Your task to perform on an android device: Open Reddit.com Image 0: 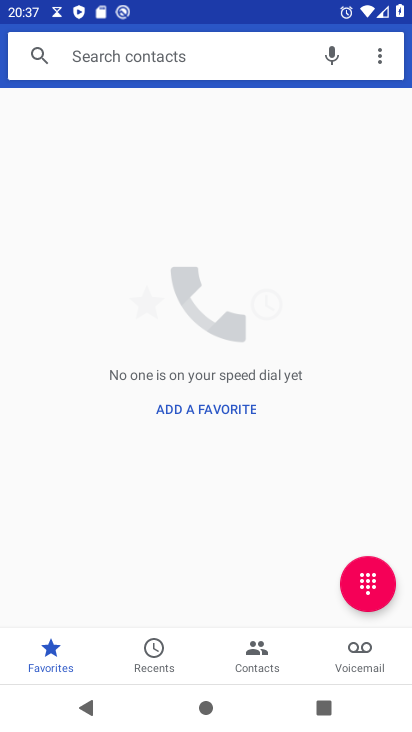
Step 0: press home button
Your task to perform on an android device: Open Reddit.com Image 1: 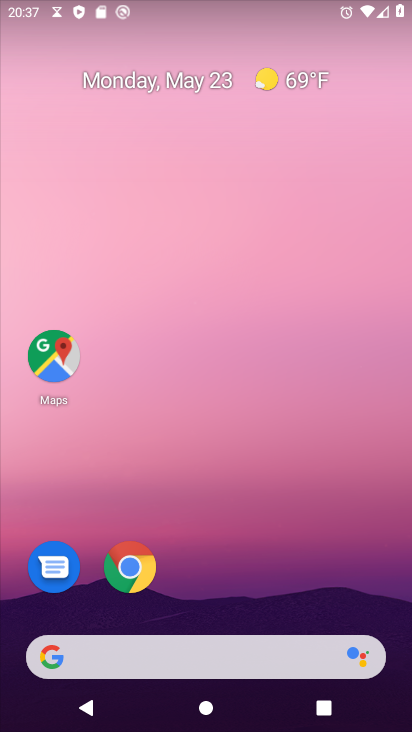
Step 1: drag from (198, 607) to (324, 22)
Your task to perform on an android device: Open Reddit.com Image 2: 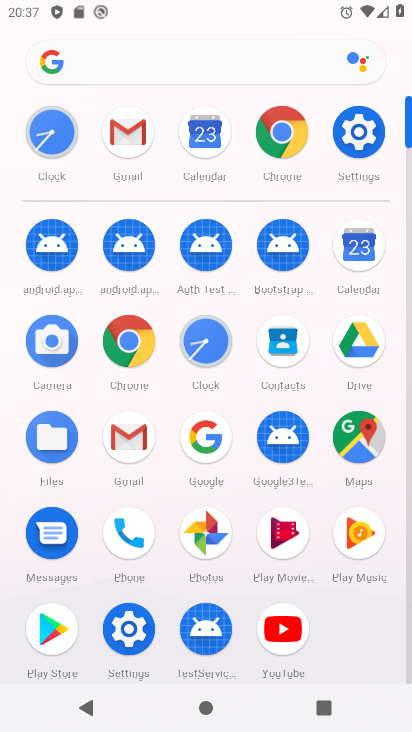
Step 2: click (286, 129)
Your task to perform on an android device: Open Reddit.com Image 3: 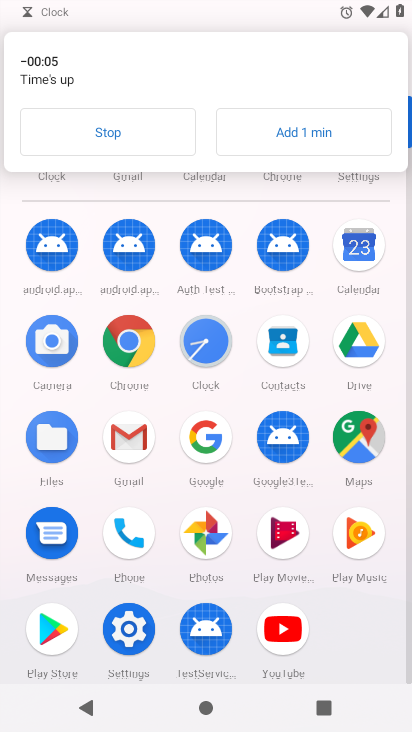
Step 3: click (124, 138)
Your task to perform on an android device: Open Reddit.com Image 4: 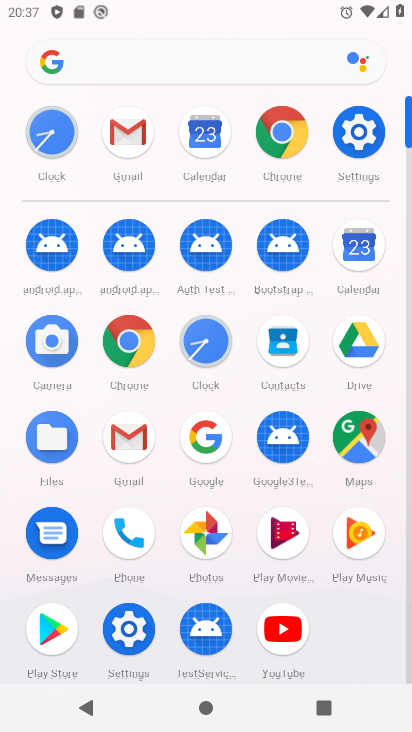
Step 4: click (292, 141)
Your task to perform on an android device: Open Reddit.com Image 5: 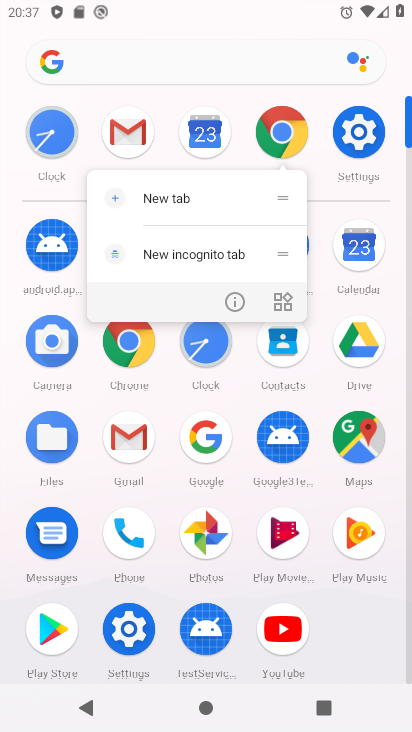
Step 5: click (288, 147)
Your task to perform on an android device: Open Reddit.com Image 6: 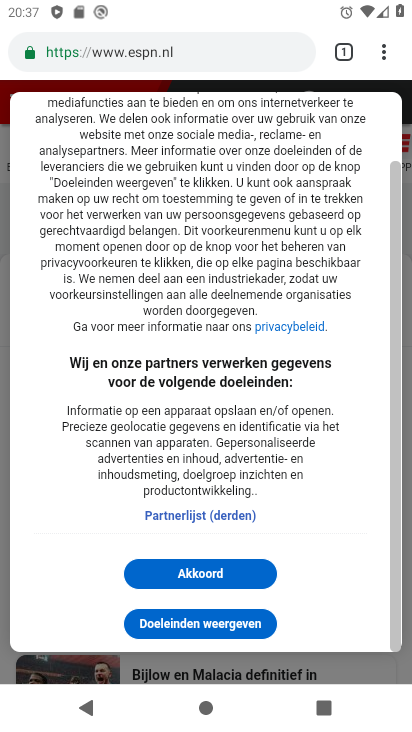
Step 6: click (165, 39)
Your task to perform on an android device: Open Reddit.com Image 7: 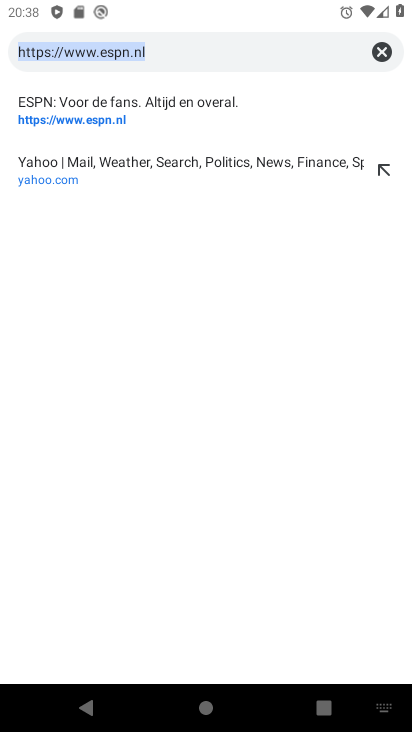
Step 7: type "Reddit.com"
Your task to perform on an android device: Open Reddit.com Image 8: 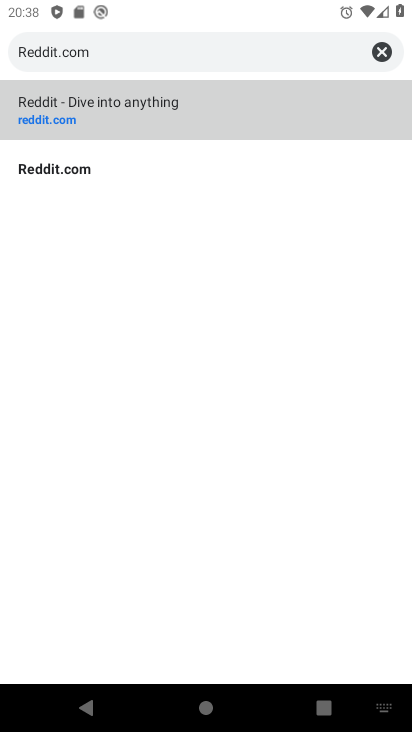
Step 8: click (47, 173)
Your task to perform on an android device: Open Reddit.com Image 9: 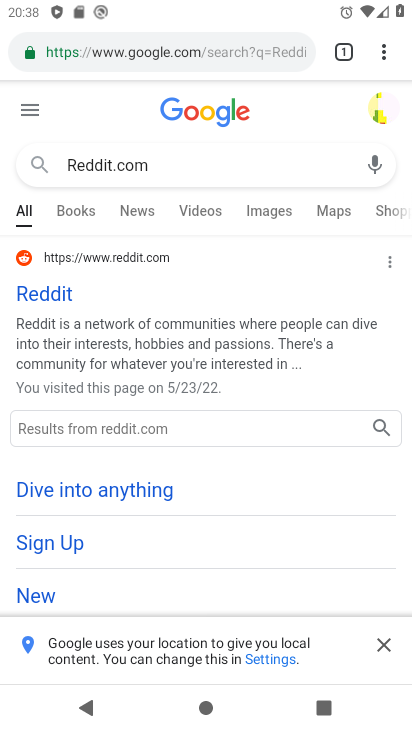
Step 9: task complete